Your task to perform on an android device: check data usage Image 0: 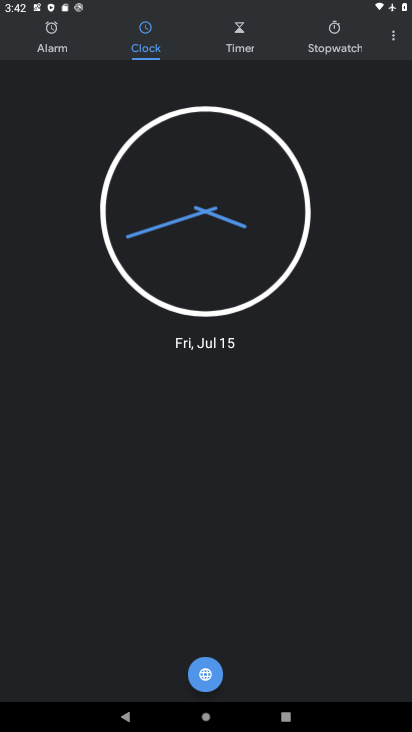
Step 0: press back button
Your task to perform on an android device: check data usage Image 1: 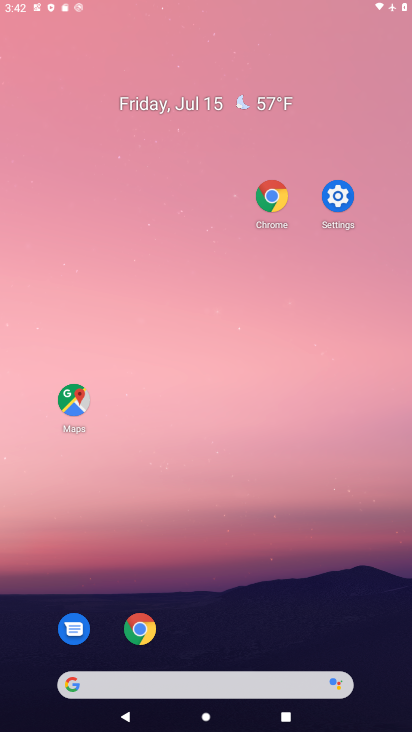
Step 1: drag from (268, 452) to (268, 169)
Your task to perform on an android device: check data usage Image 2: 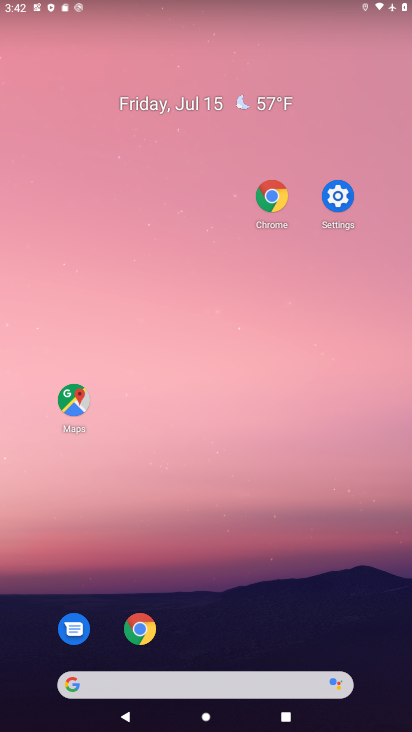
Step 2: drag from (272, 604) to (219, 153)
Your task to perform on an android device: check data usage Image 3: 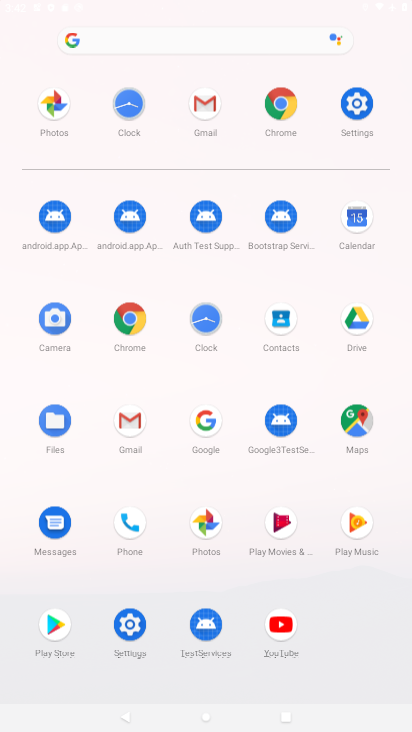
Step 3: drag from (267, 530) to (212, 142)
Your task to perform on an android device: check data usage Image 4: 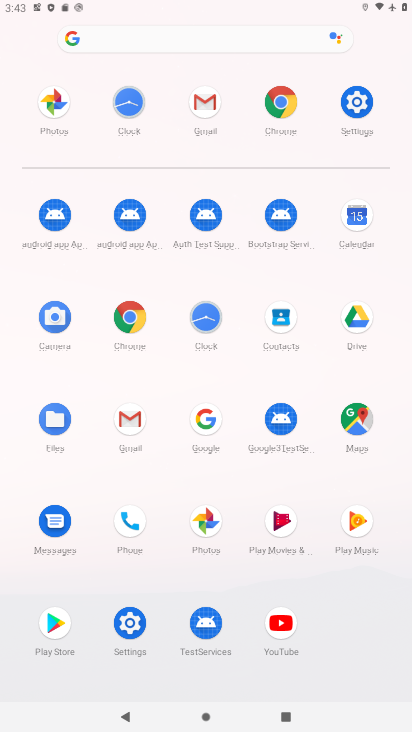
Step 4: click (128, 626)
Your task to perform on an android device: check data usage Image 5: 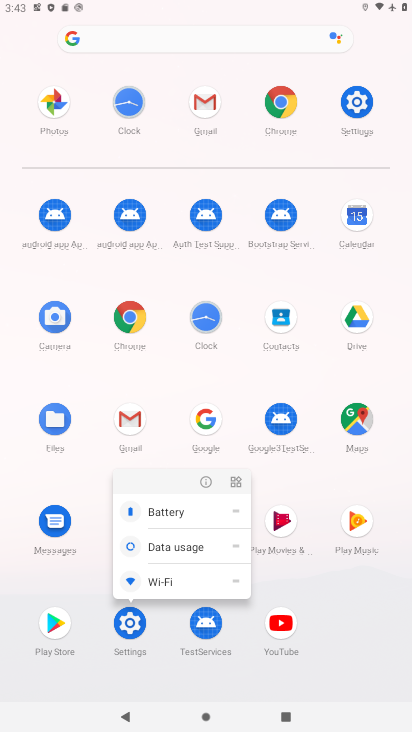
Step 5: click (141, 621)
Your task to perform on an android device: check data usage Image 6: 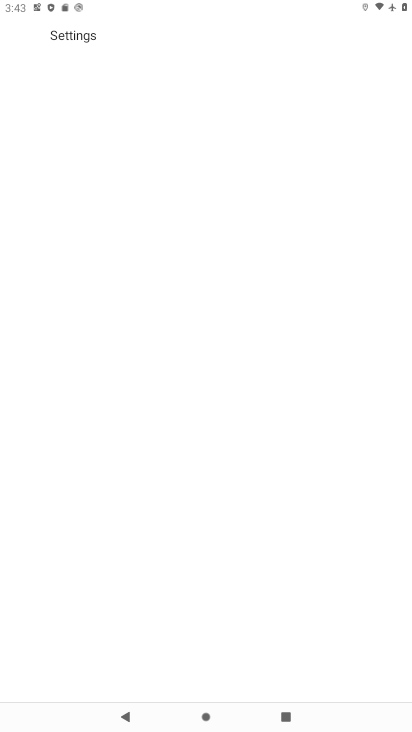
Step 6: click (143, 620)
Your task to perform on an android device: check data usage Image 7: 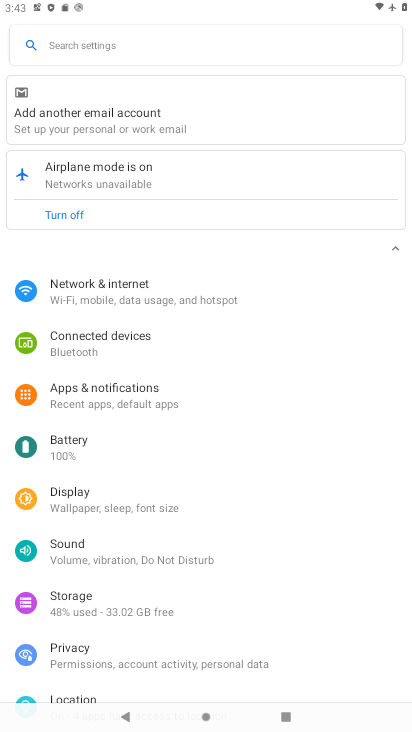
Step 7: click (115, 304)
Your task to perform on an android device: check data usage Image 8: 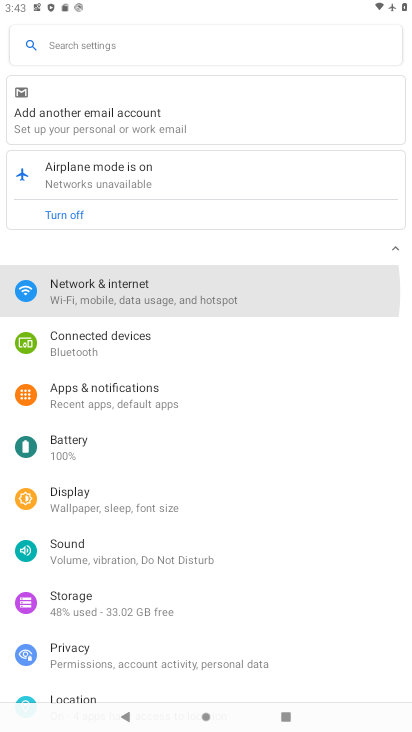
Step 8: click (116, 303)
Your task to perform on an android device: check data usage Image 9: 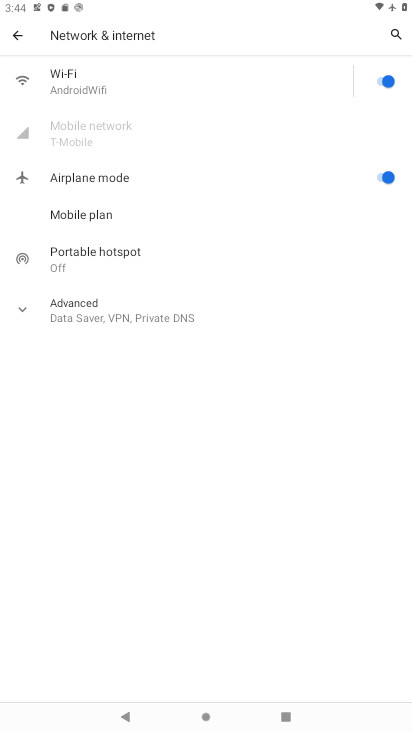
Step 9: task complete